Your task to perform on an android device: add a label to a message in the gmail app Image 0: 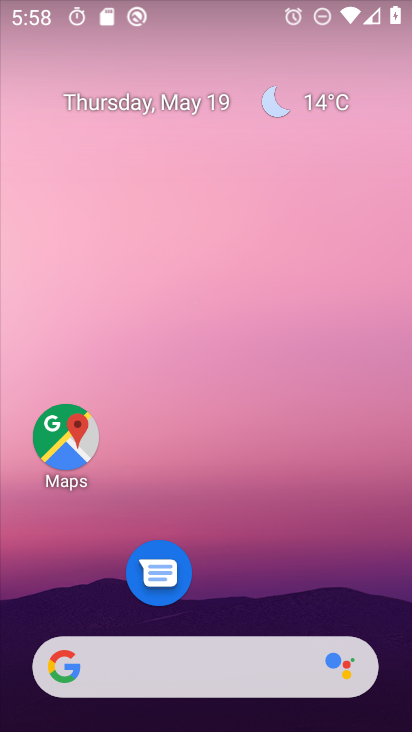
Step 0: drag from (251, 585) to (237, 95)
Your task to perform on an android device: add a label to a message in the gmail app Image 1: 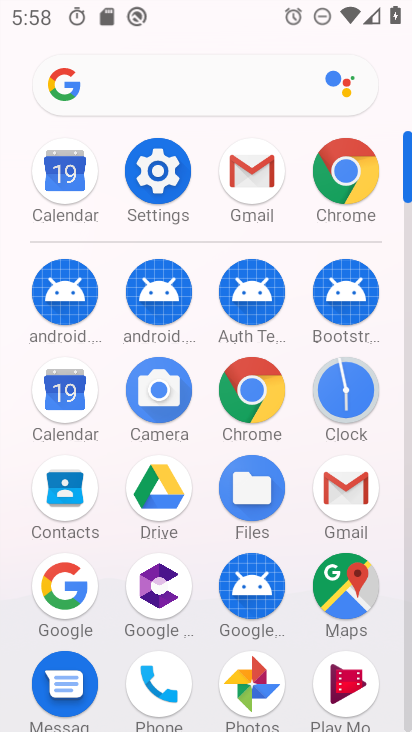
Step 1: click (336, 500)
Your task to perform on an android device: add a label to a message in the gmail app Image 2: 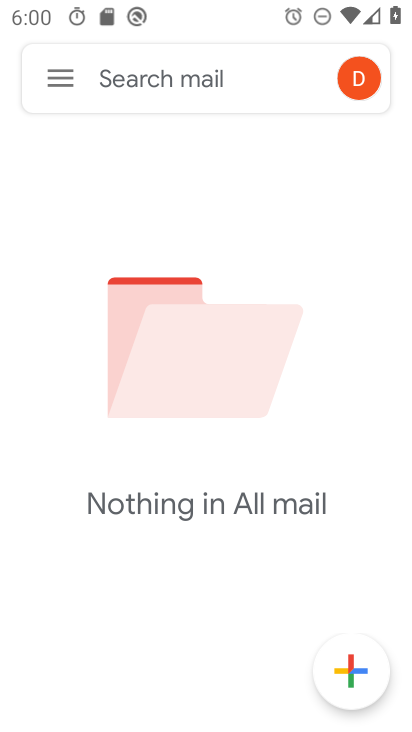
Step 2: press home button
Your task to perform on an android device: add a label to a message in the gmail app Image 3: 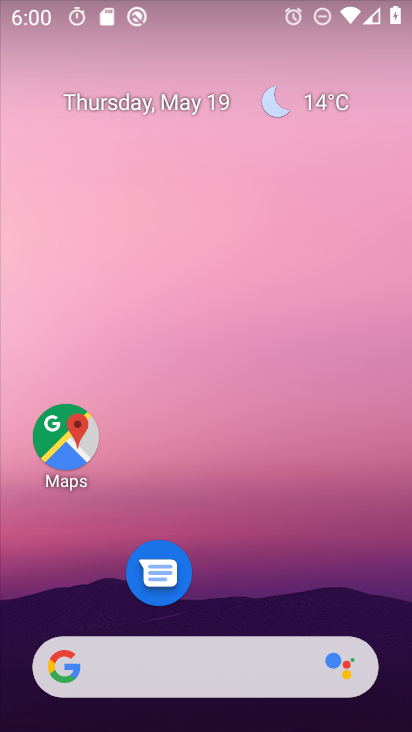
Step 3: drag from (230, 610) to (199, 134)
Your task to perform on an android device: add a label to a message in the gmail app Image 4: 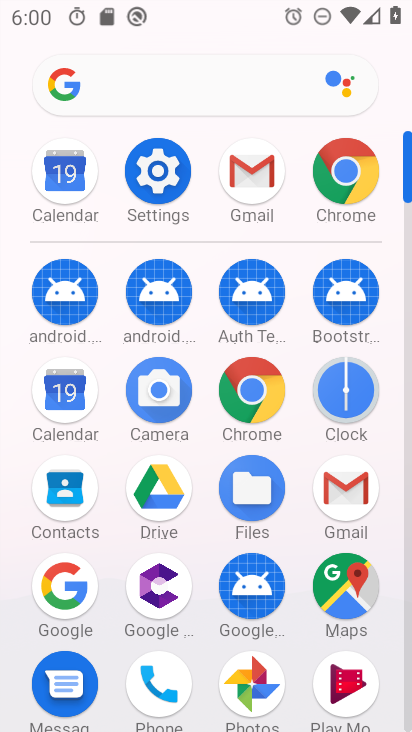
Step 4: click (252, 210)
Your task to perform on an android device: add a label to a message in the gmail app Image 5: 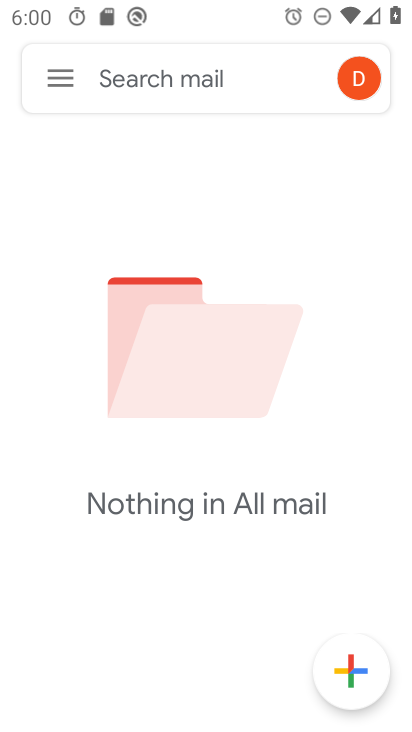
Step 5: task complete